Your task to perform on an android device: Open settings Image 0: 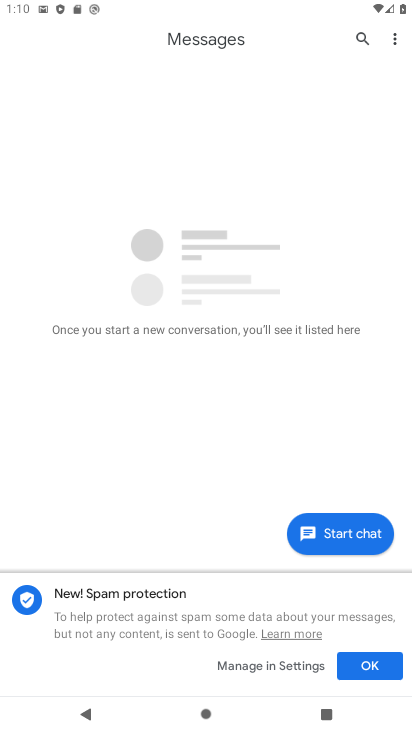
Step 0: press home button
Your task to perform on an android device: Open settings Image 1: 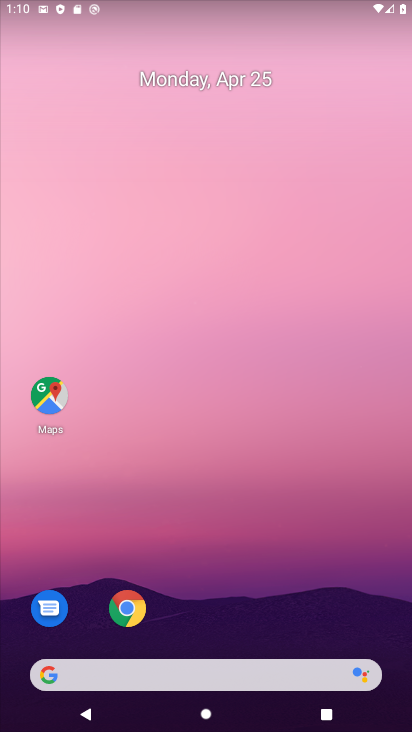
Step 1: drag from (226, 583) to (189, 98)
Your task to perform on an android device: Open settings Image 2: 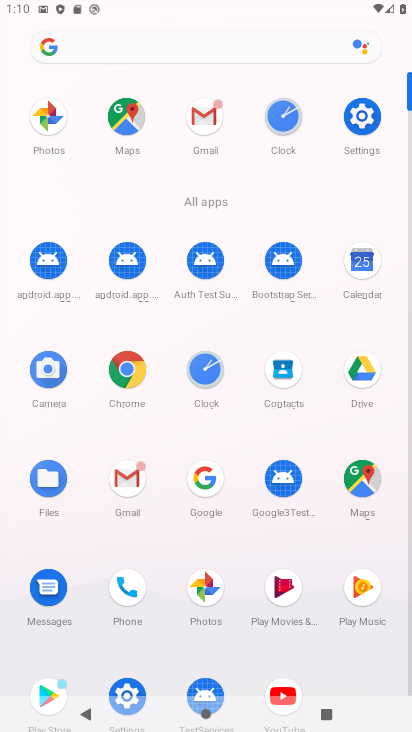
Step 2: click (357, 136)
Your task to perform on an android device: Open settings Image 3: 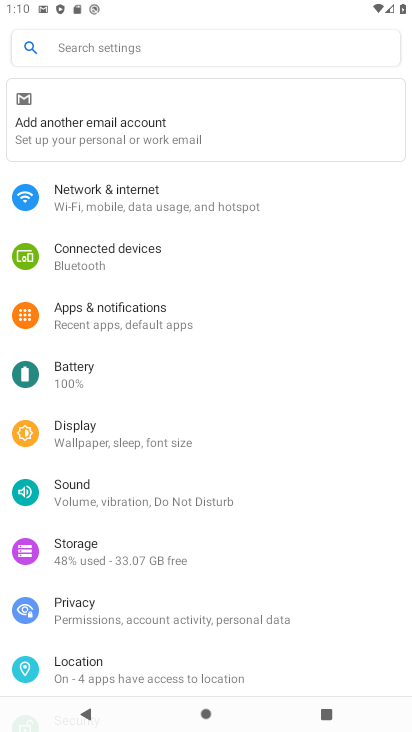
Step 3: task complete